Your task to perform on an android device: Open the map Image 0: 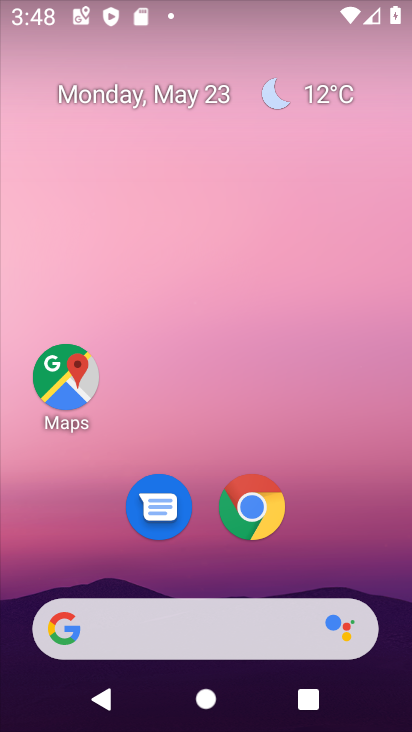
Step 0: click (63, 370)
Your task to perform on an android device: Open the map Image 1: 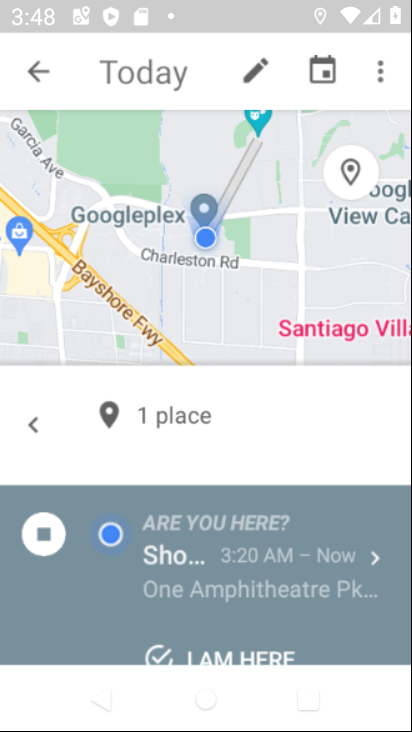
Step 1: task complete